Your task to perform on an android device: Add usb-a to the cart on ebay.com, then select checkout. Image 0: 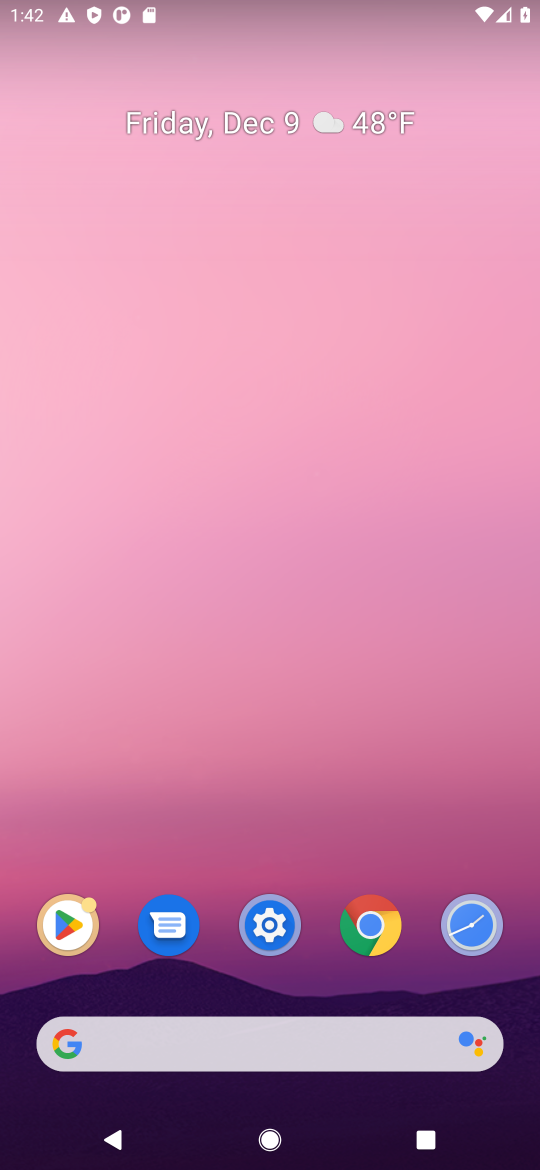
Step 0: click (219, 1071)
Your task to perform on an android device: Add usb-a to the cart on ebay.com, then select checkout. Image 1: 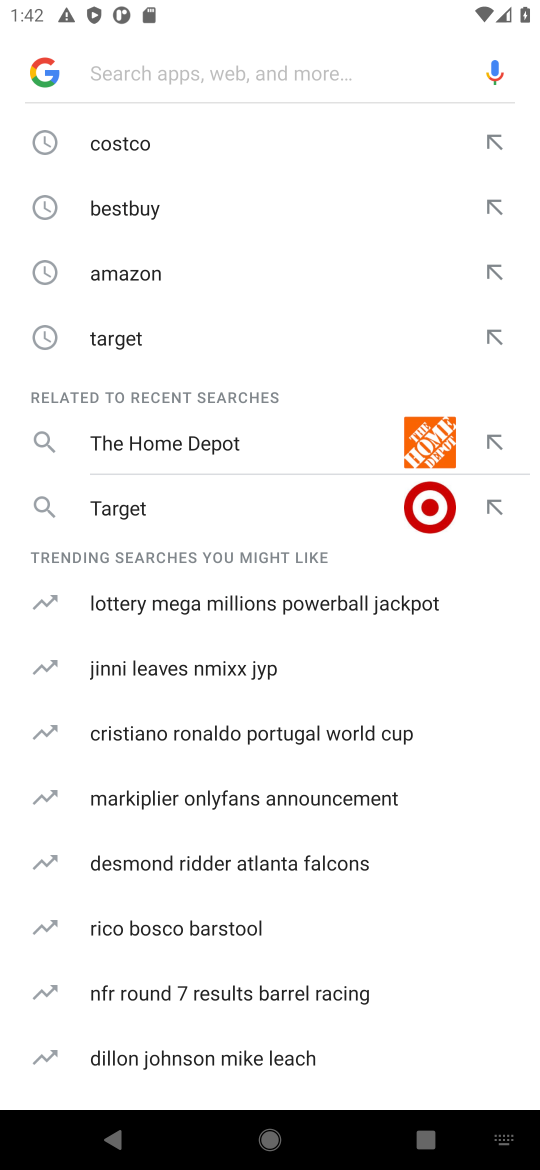
Step 1: type "ebay"
Your task to perform on an android device: Add usb-a to the cart on ebay.com, then select checkout. Image 2: 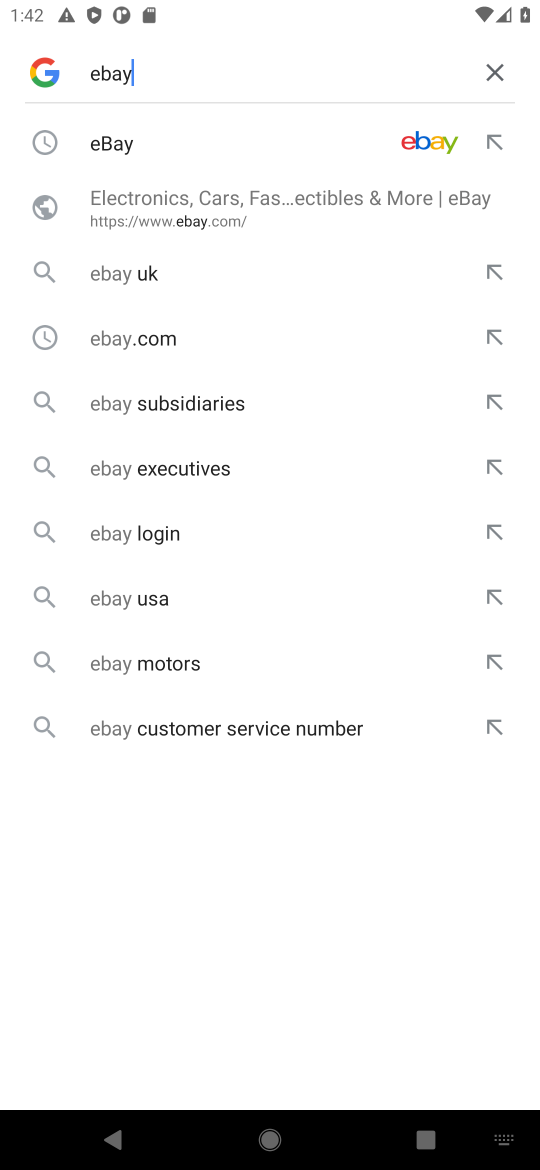
Step 2: click (186, 143)
Your task to perform on an android device: Add usb-a to the cart on ebay.com, then select checkout. Image 3: 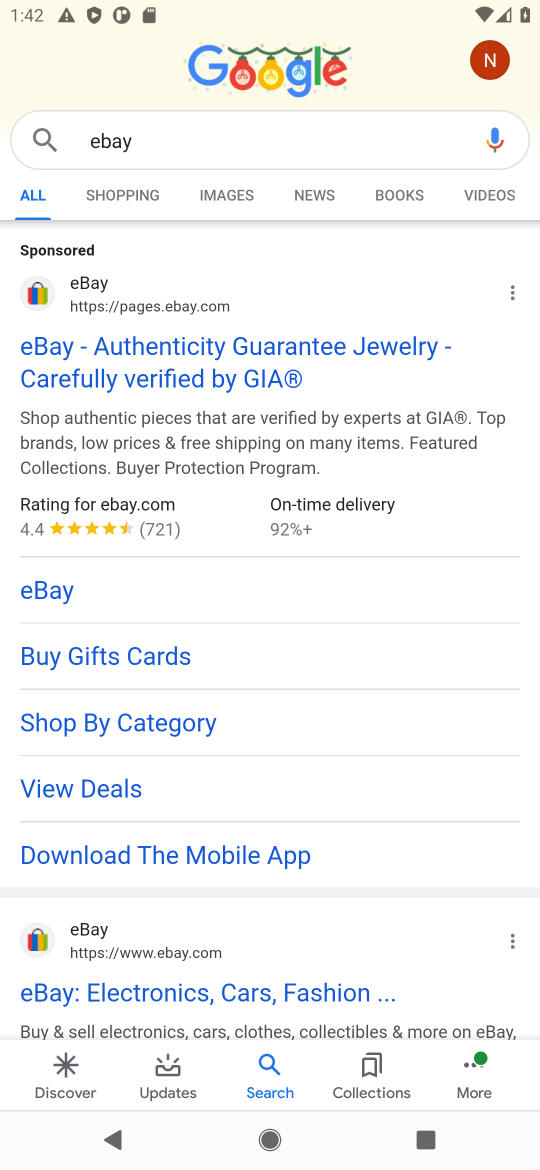
Step 3: click (199, 342)
Your task to perform on an android device: Add usb-a to the cart on ebay.com, then select checkout. Image 4: 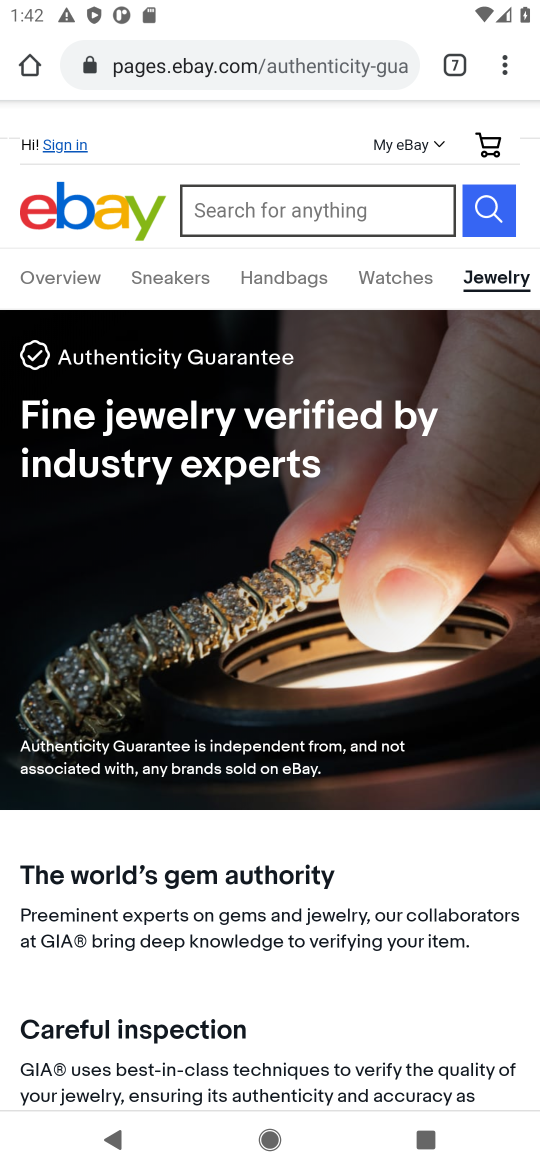
Step 4: click (314, 221)
Your task to perform on an android device: Add usb-a to the cart on ebay.com, then select checkout. Image 5: 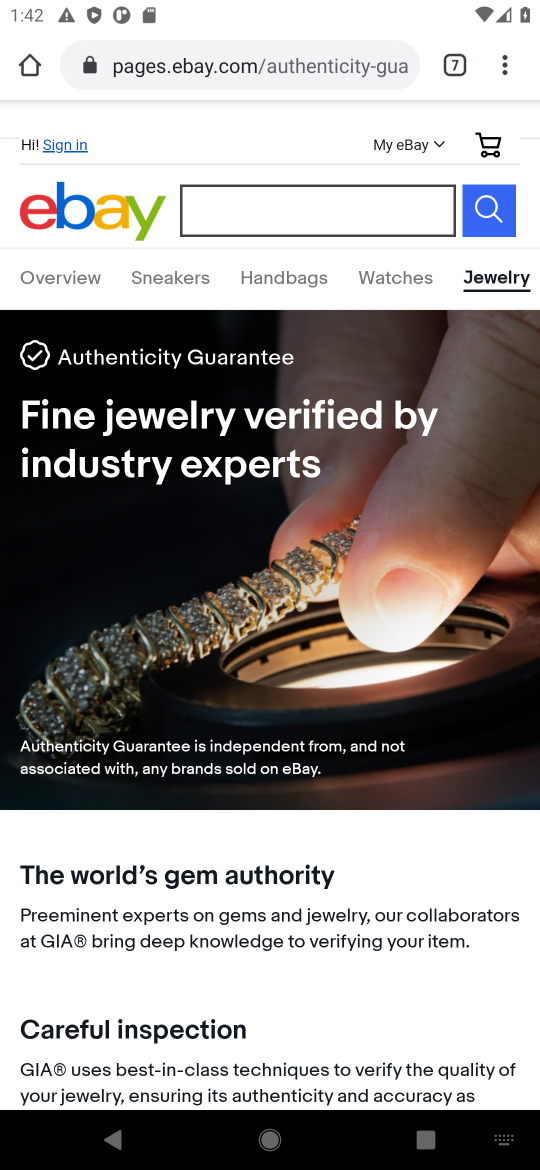
Step 5: type "usb-a"
Your task to perform on an android device: Add usb-a to the cart on ebay.com, then select checkout. Image 6: 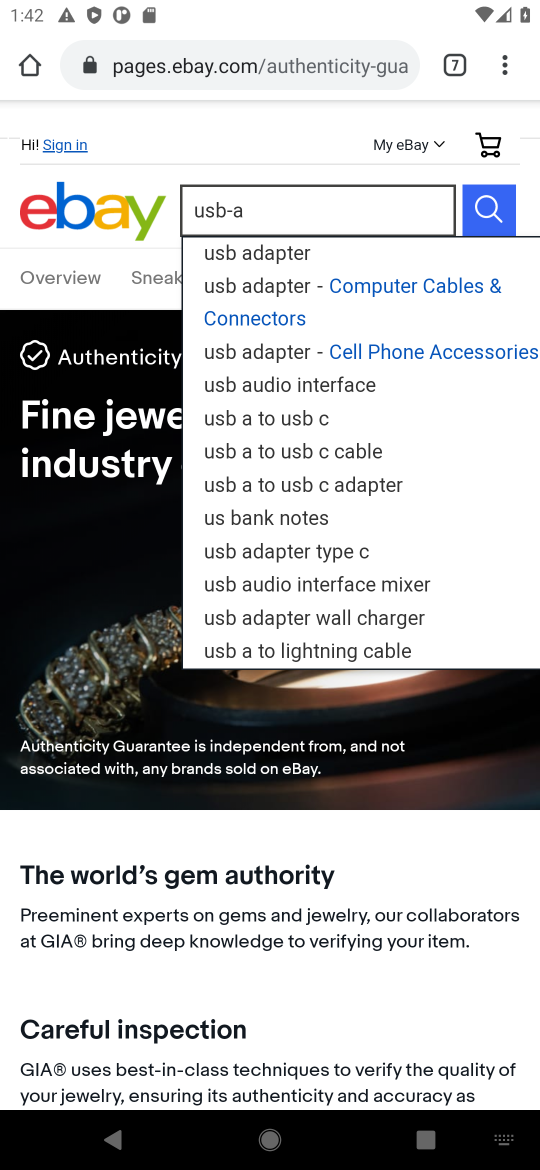
Step 6: click (483, 230)
Your task to perform on an android device: Add usb-a to the cart on ebay.com, then select checkout. Image 7: 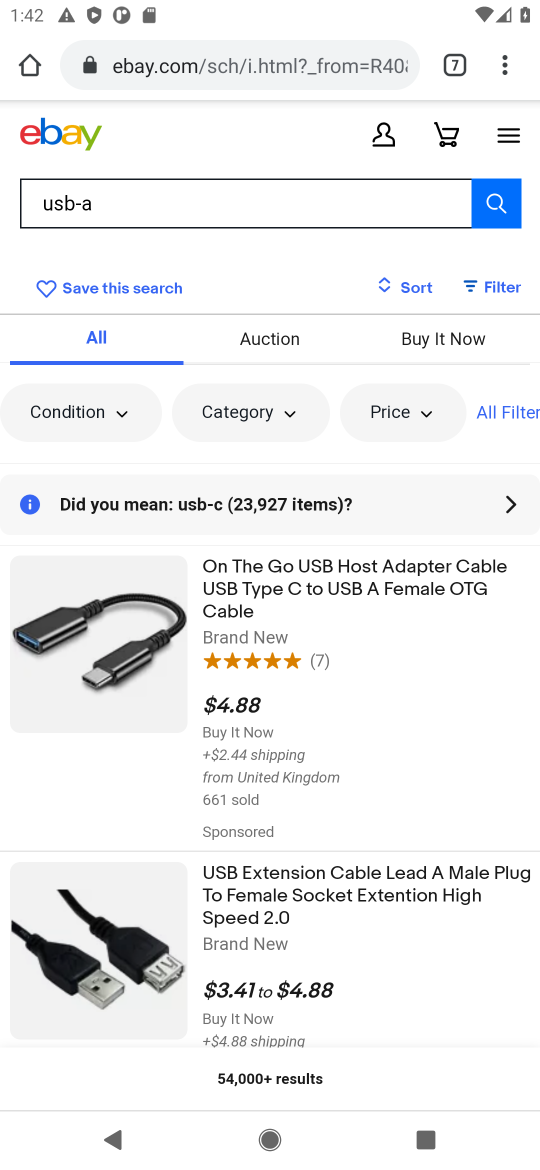
Step 7: click (362, 597)
Your task to perform on an android device: Add usb-a to the cart on ebay.com, then select checkout. Image 8: 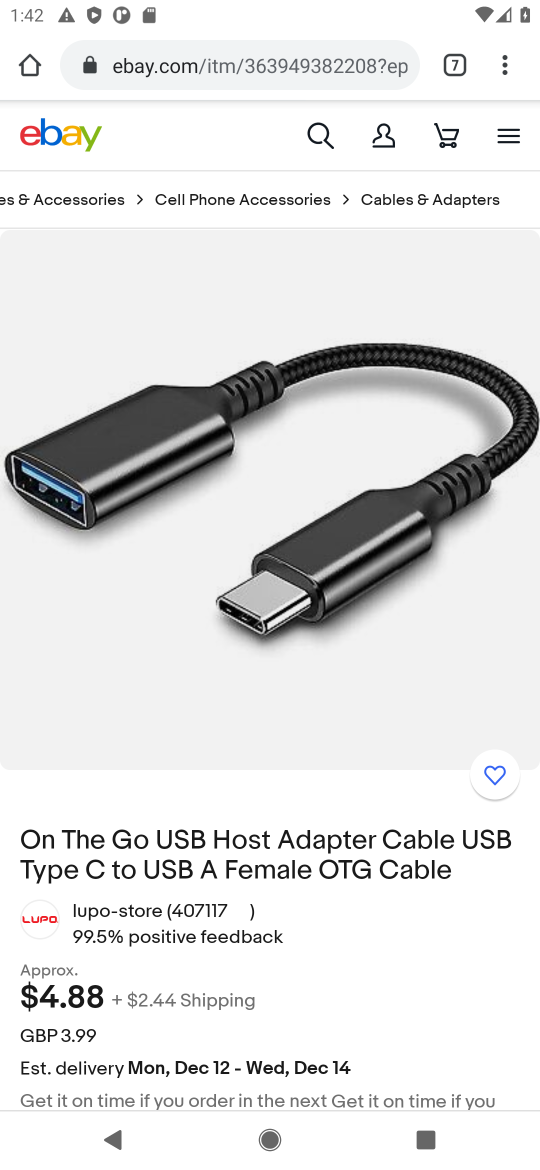
Step 8: drag from (365, 933) to (200, 24)
Your task to perform on an android device: Add usb-a to the cart on ebay.com, then select checkout. Image 9: 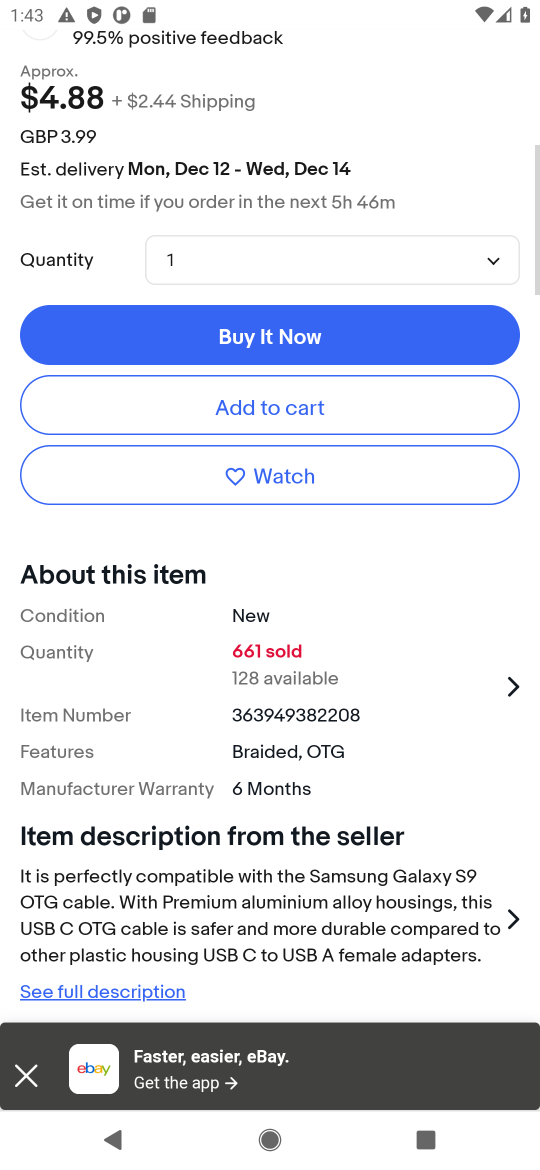
Step 9: click (378, 413)
Your task to perform on an android device: Add usb-a to the cart on ebay.com, then select checkout. Image 10: 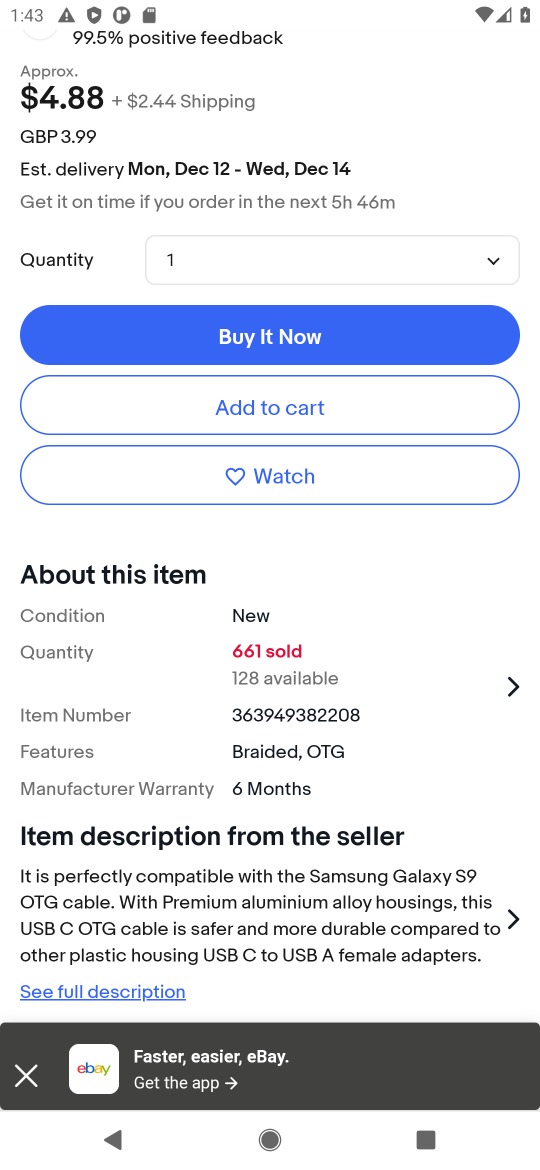
Step 10: task complete